Your task to perform on an android device: Open the calendar and show me this week's events? Image 0: 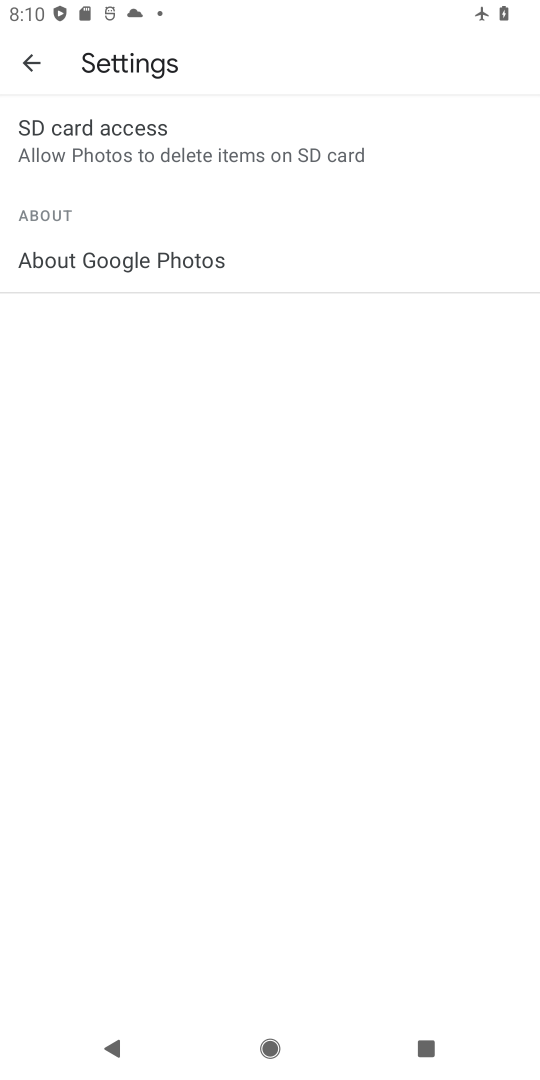
Step 0: press home button
Your task to perform on an android device: Open the calendar and show me this week's events? Image 1: 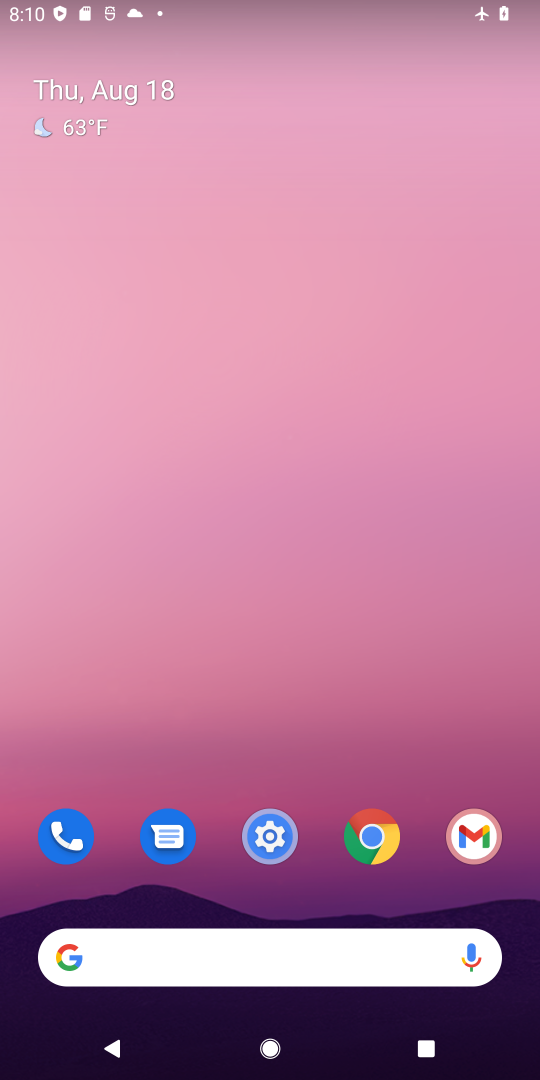
Step 1: drag from (320, 769) to (300, 124)
Your task to perform on an android device: Open the calendar and show me this week's events? Image 2: 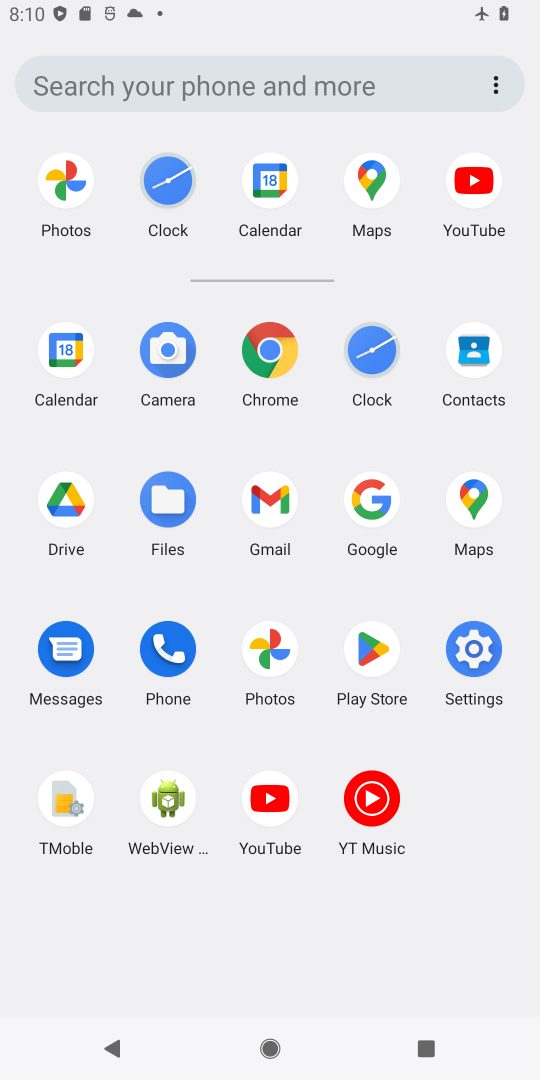
Step 2: click (53, 346)
Your task to perform on an android device: Open the calendar and show me this week's events? Image 3: 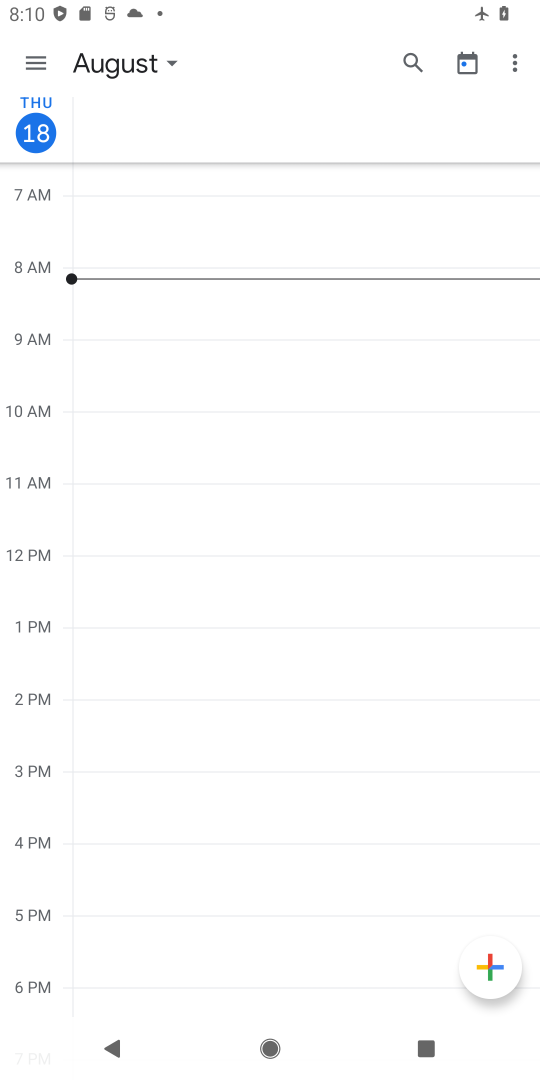
Step 3: click (128, 60)
Your task to perform on an android device: Open the calendar and show me this week's events? Image 4: 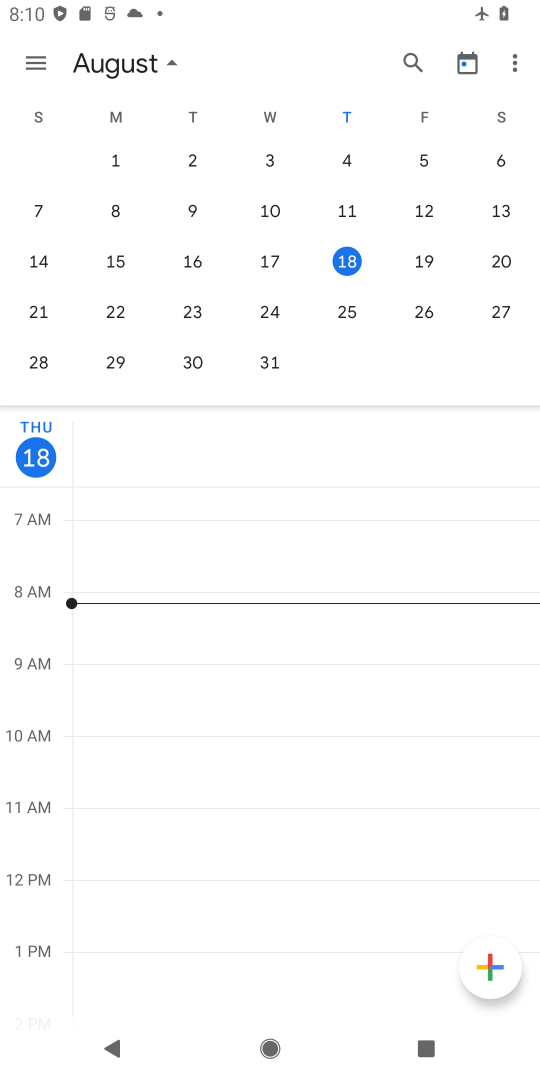
Step 4: click (48, 61)
Your task to perform on an android device: Open the calendar and show me this week's events? Image 5: 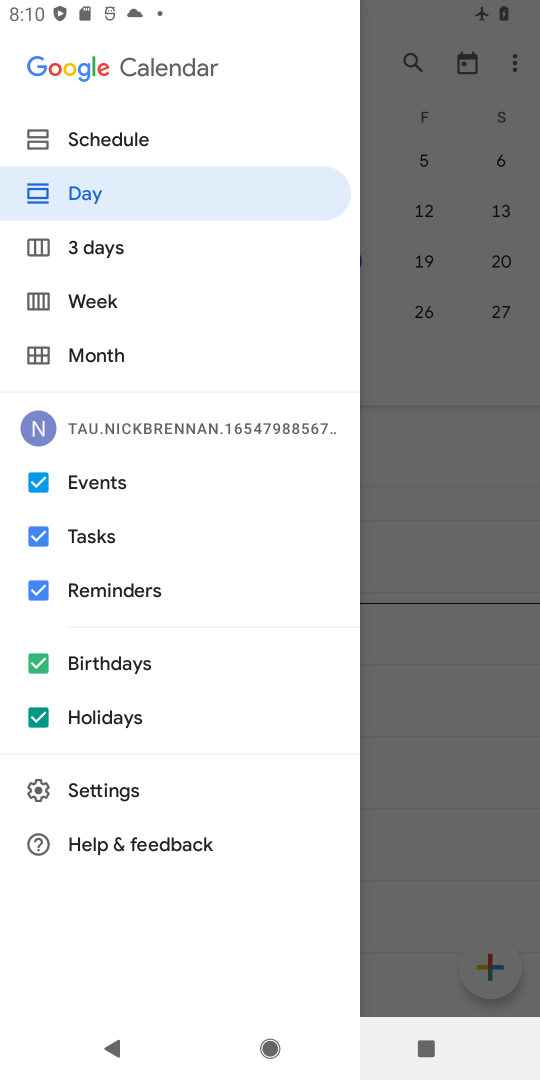
Step 5: click (97, 295)
Your task to perform on an android device: Open the calendar and show me this week's events? Image 6: 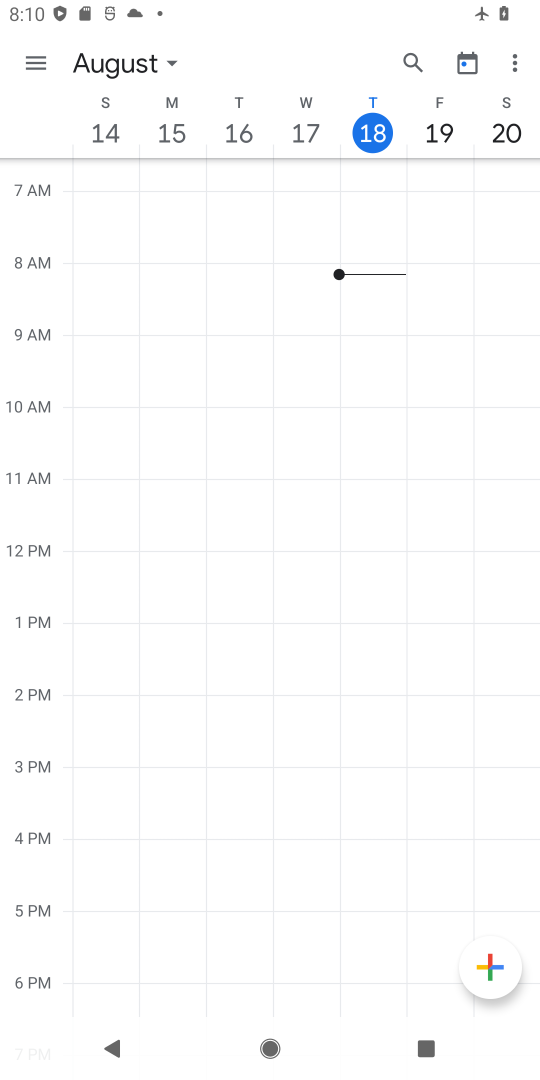
Step 6: task complete